Your task to perform on an android device: Open Yahoo.com Image 0: 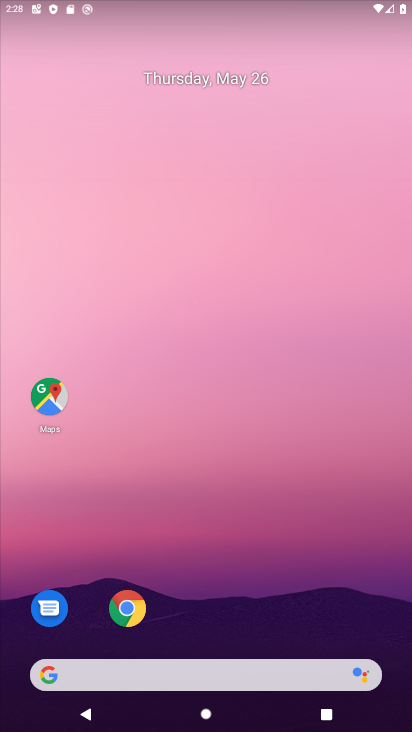
Step 0: drag from (317, 594) to (371, 114)
Your task to perform on an android device: Open Yahoo.com Image 1: 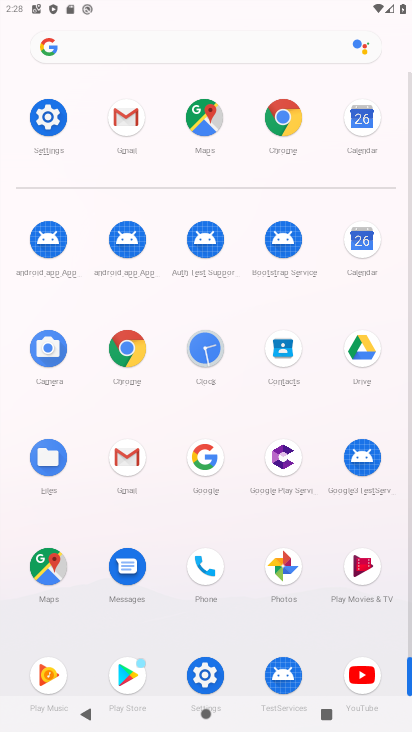
Step 1: click (283, 120)
Your task to perform on an android device: Open Yahoo.com Image 2: 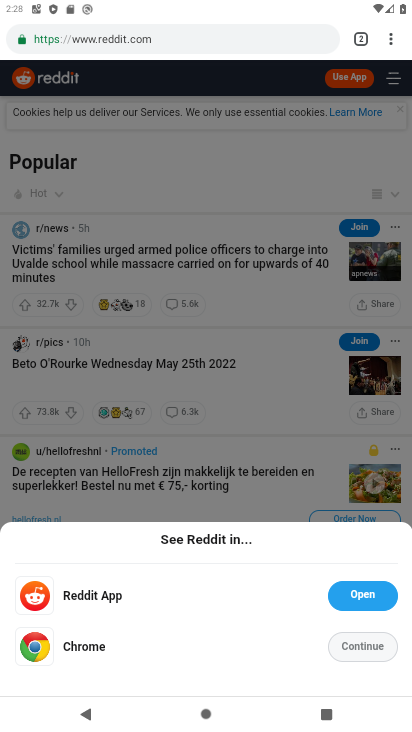
Step 2: click (222, 33)
Your task to perform on an android device: Open Yahoo.com Image 3: 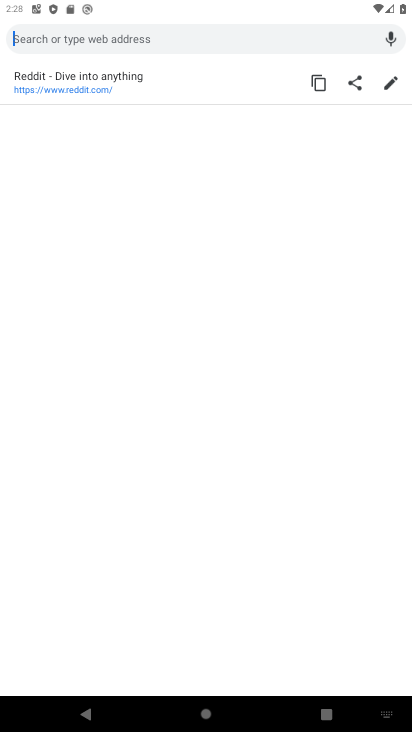
Step 3: type "yahoo"
Your task to perform on an android device: Open Yahoo.com Image 4: 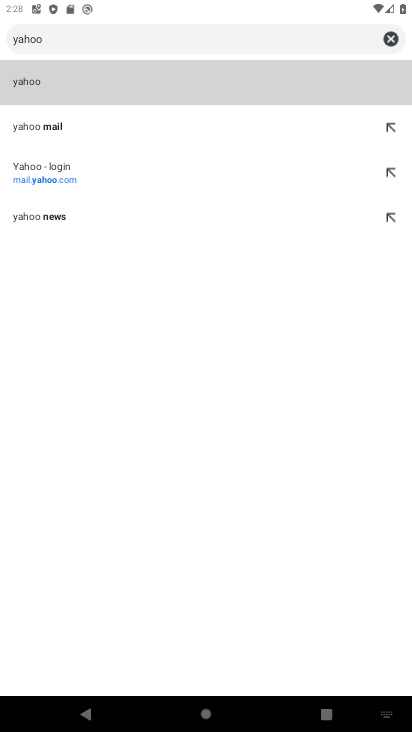
Step 4: click (70, 171)
Your task to perform on an android device: Open Yahoo.com Image 5: 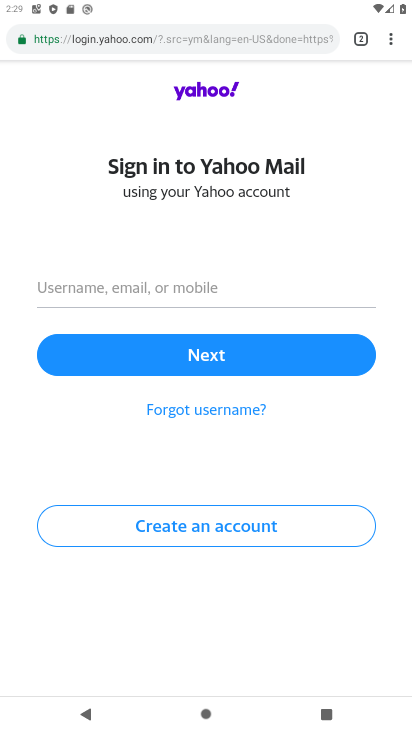
Step 5: task complete